Your task to perform on an android device: turn on the 12-hour format for clock Image 0: 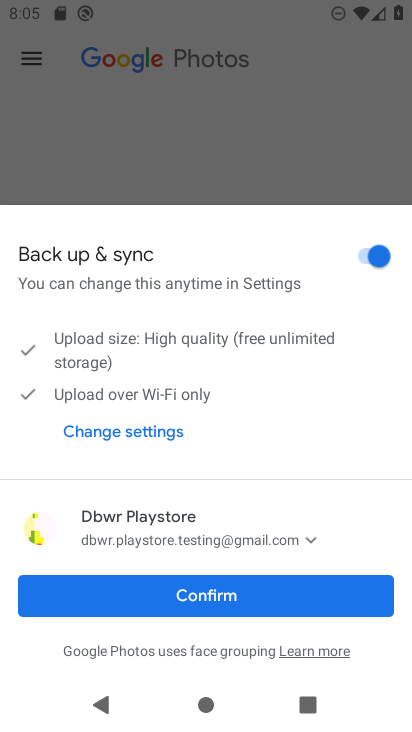
Step 0: press home button
Your task to perform on an android device: turn on the 12-hour format for clock Image 1: 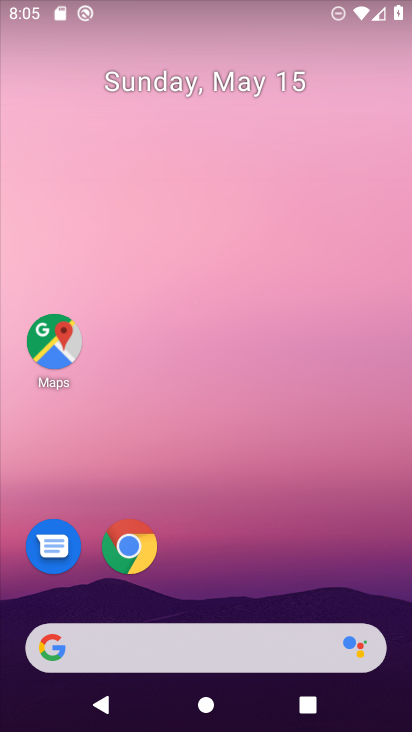
Step 1: drag from (279, 480) to (272, 58)
Your task to perform on an android device: turn on the 12-hour format for clock Image 2: 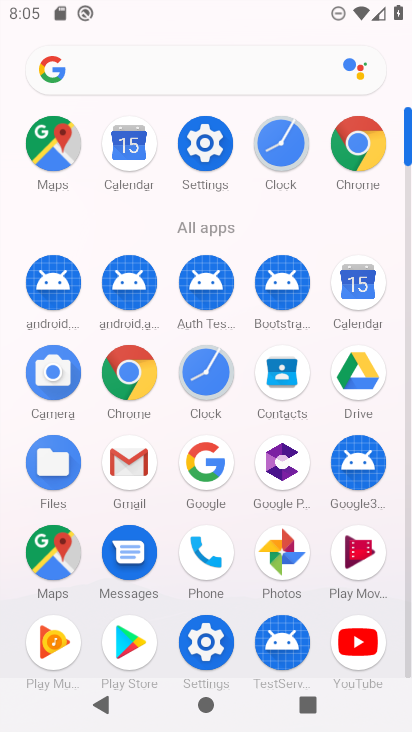
Step 2: click (269, 150)
Your task to perform on an android device: turn on the 12-hour format for clock Image 3: 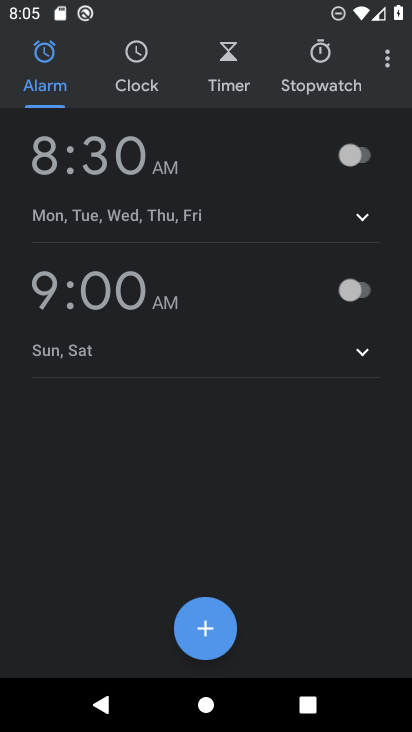
Step 3: click (387, 60)
Your task to perform on an android device: turn on the 12-hour format for clock Image 4: 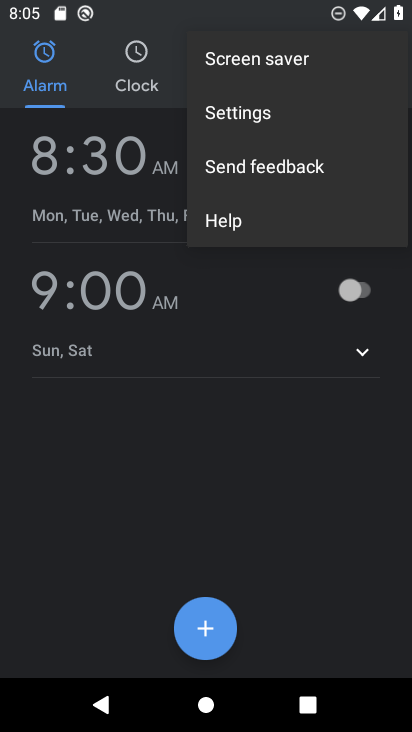
Step 4: click (318, 121)
Your task to perform on an android device: turn on the 12-hour format for clock Image 5: 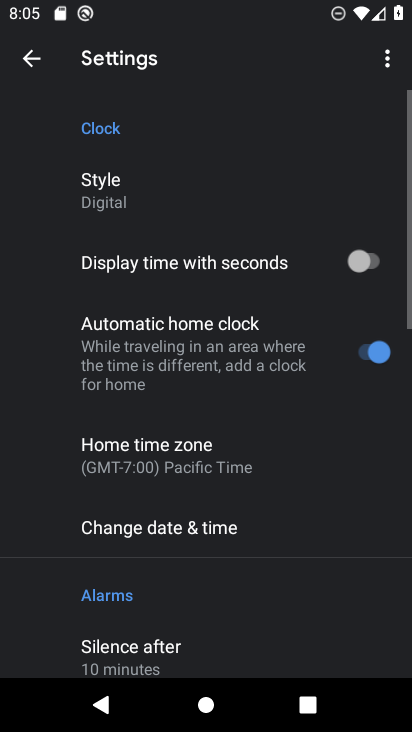
Step 5: drag from (274, 499) to (271, 101)
Your task to perform on an android device: turn on the 12-hour format for clock Image 6: 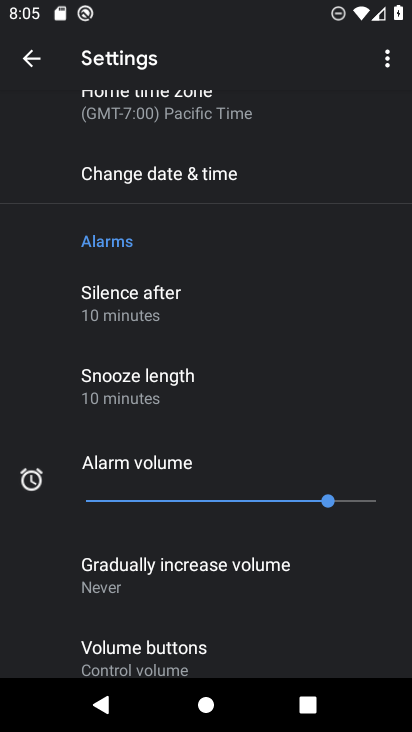
Step 6: drag from (238, 375) to (250, 79)
Your task to perform on an android device: turn on the 12-hour format for clock Image 7: 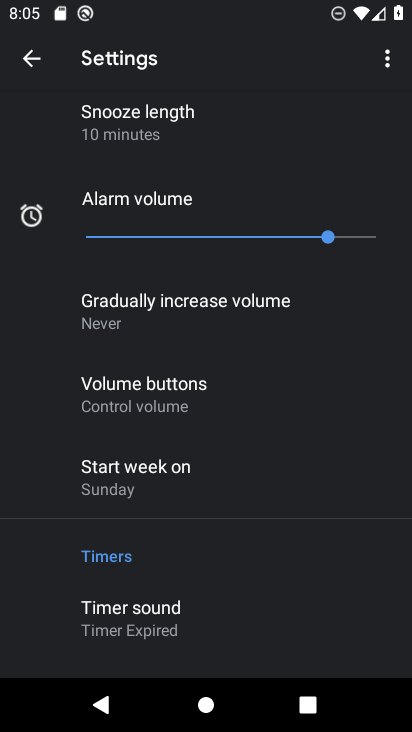
Step 7: drag from (201, 391) to (224, 106)
Your task to perform on an android device: turn on the 12-hour format for clock Image 8: 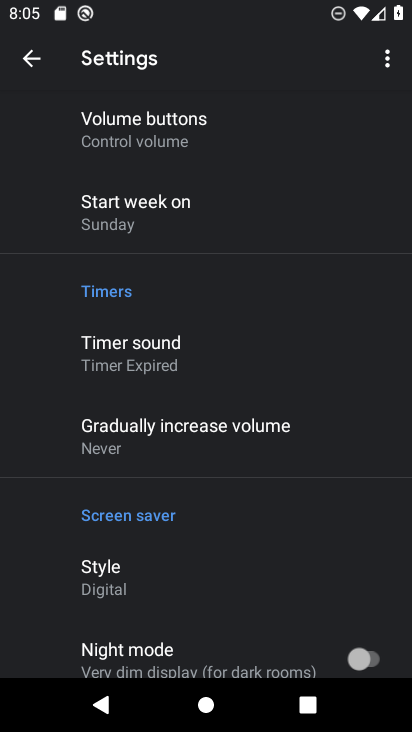
Step 8: drag from (224, 106) to (222, 634)
Your task to perform on an android device: turn on the 12-hour format for clock Image 9: 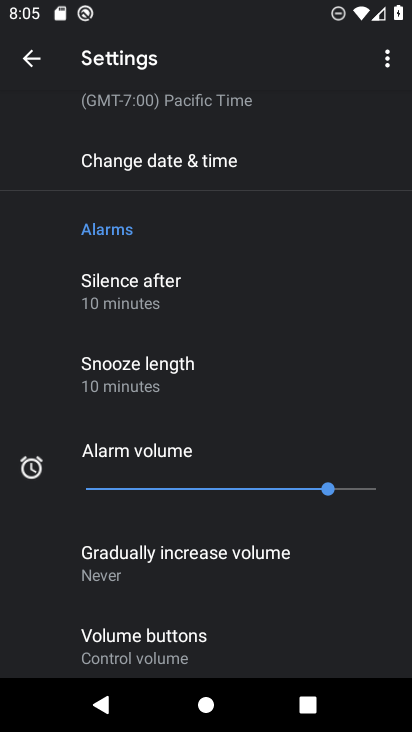
Step 9: click (262, 148)
Your task to perform on an android device: turn on the 12-hour format for clock Image 10: 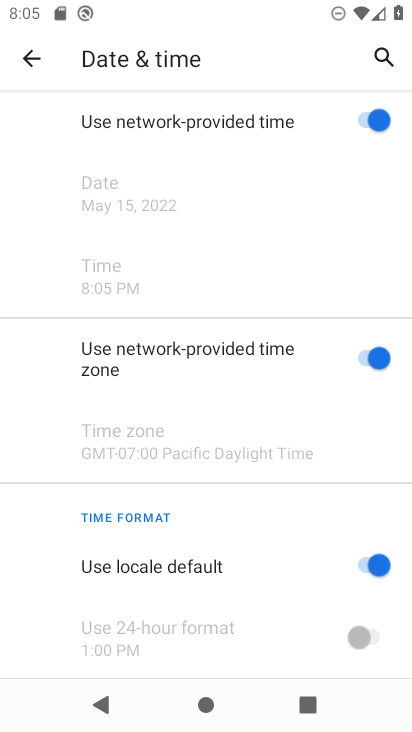
Step 10: task complete